Your task to perform on an android device: turn off sleep mode Image 0: 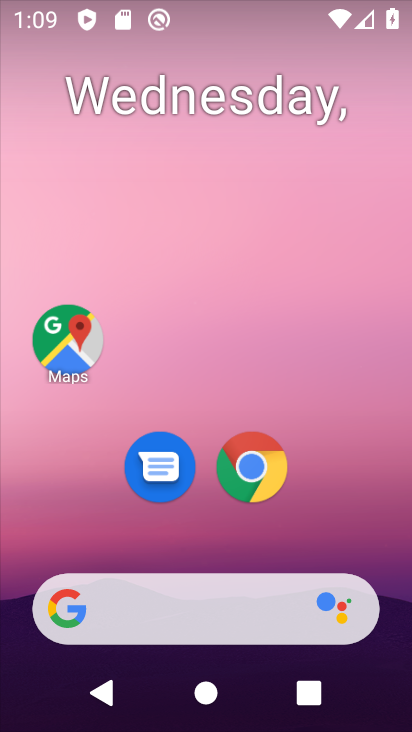
Step 0: drag from (339, 479) to (271, 66)
Your task to perform on an android device: turn off sleep mode Image 1: 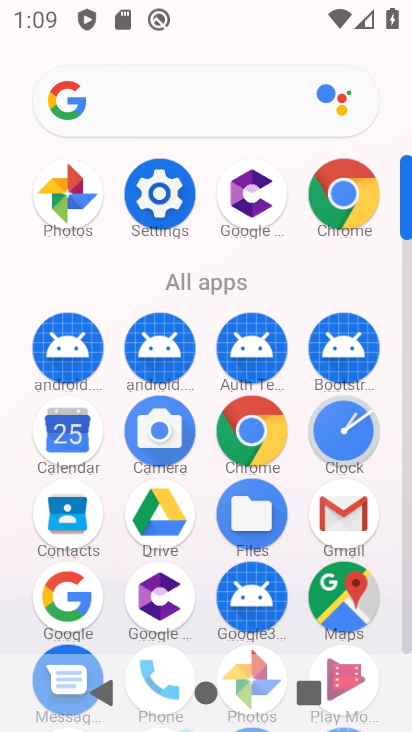
Step 1: click (176, 201)
Your task to perform on an android device: turn off sleep mode Image 2: 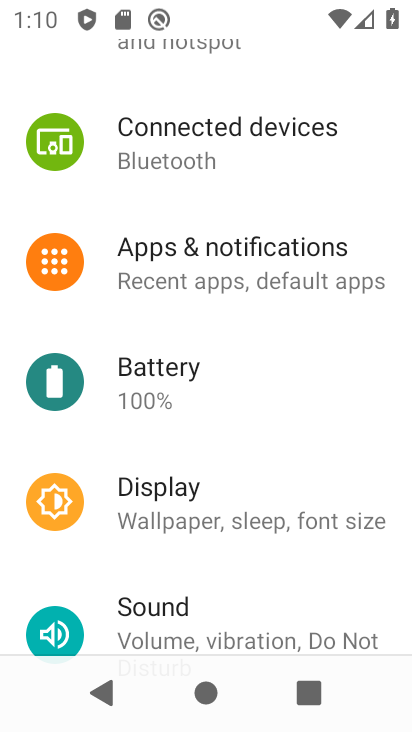
Step 2: click (239, 504)
Your task to perform on an android device: turn off sleep mode Image 3: 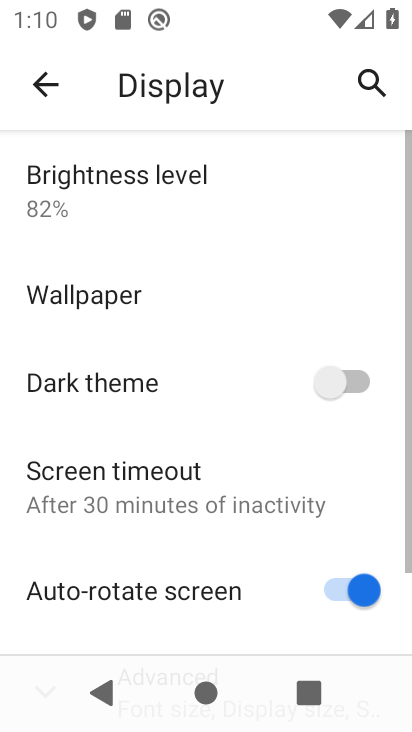
Step 3: task complete